Your task to perform on an android device: Go to location settings Image 0: 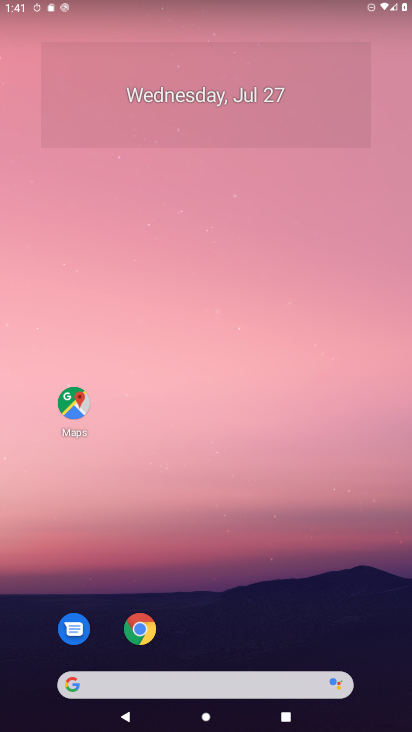
Step 0: press home button
Your task to perform on an android device: Go to location settings Image 1: 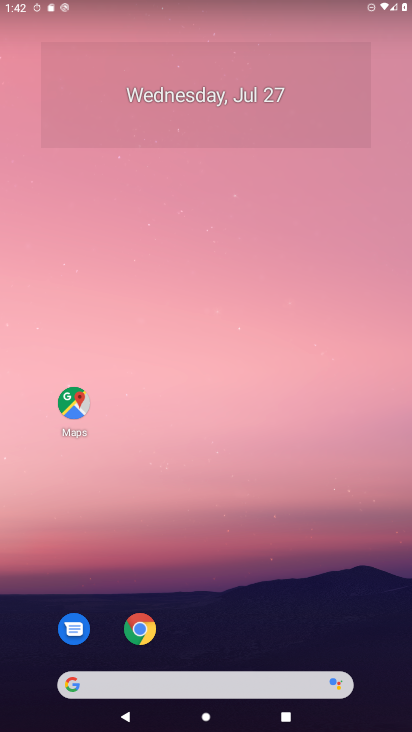
Step 1: drag from (253, 645) to (322, 0)
Your task to perform on an android device: Go to location settings Image 2: 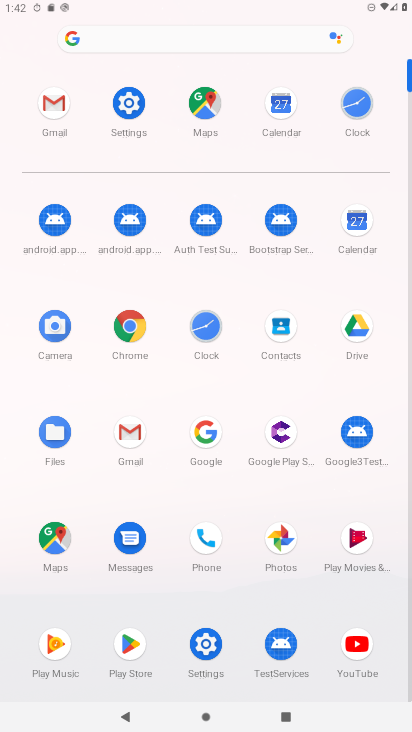
Step 2: click (132, 114)
Your task to perform on an android device: Go to location settings Image 3: 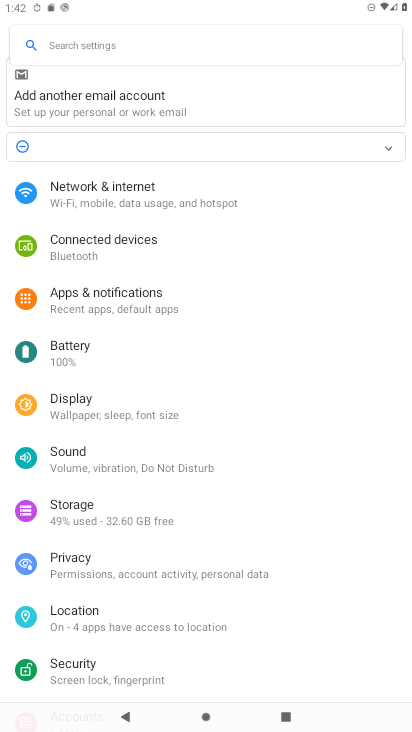
Step 3: click (67, 624)
Your task to perform on an android device: Go to location settings Image 4: 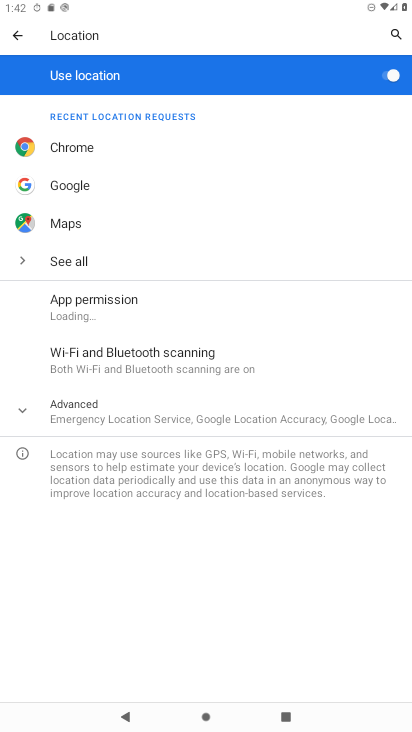
Step 4: task complete